Your task to perform on an android device: Open Youtube and go to "Your channel" Image 0: 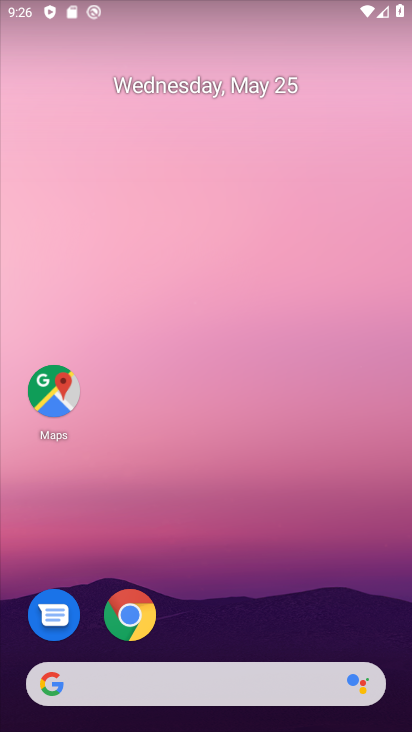
Step 0: drag from (237, 547) to (255, 22)
Your task to perform on an android device: Open Youtube and go to "Your channel" Image 1: 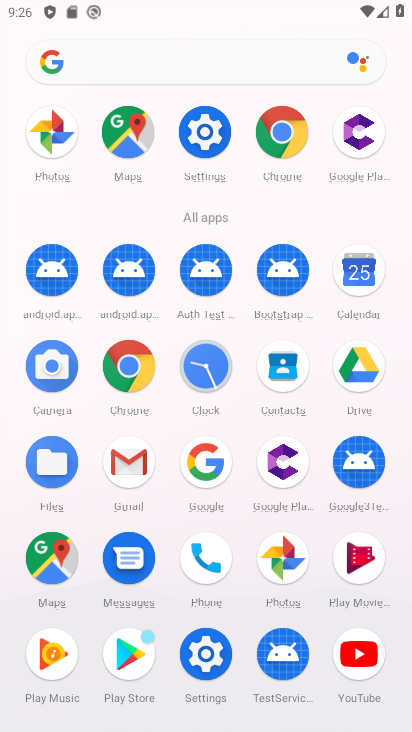
Step 1: click (361, 655)
Your task to perform on an android device: Open Youtube and go to "Your channel" Image 2: 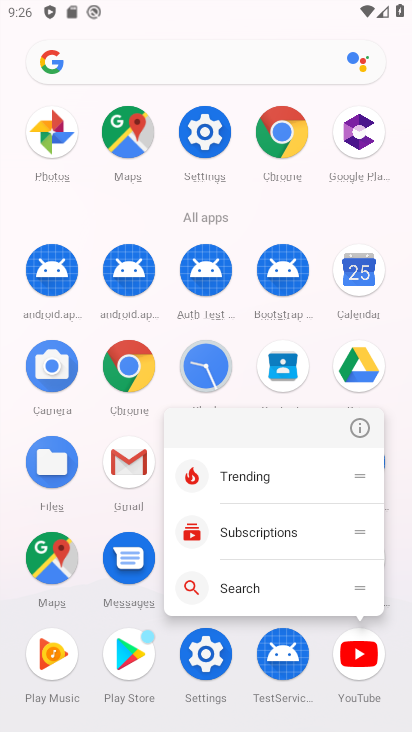
Step 2: click (361, 652)
Your task to perform on an android device: Open Youtube and go to "Your channel" Image 3: 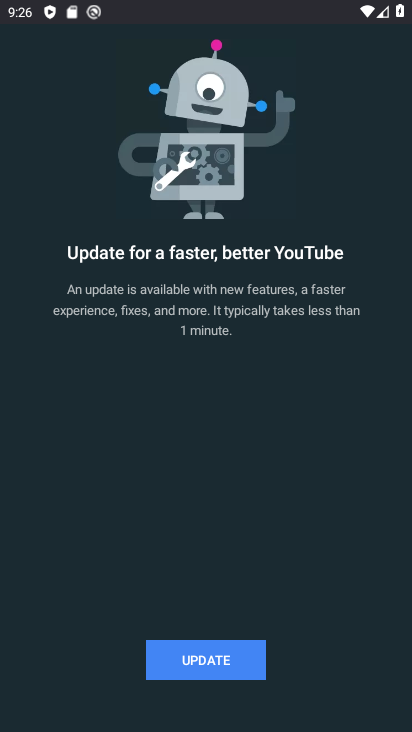
Step 3: click (223, 654)
Your task to perform on an android device: Open Youtube and go to "Your channel" Image 4: 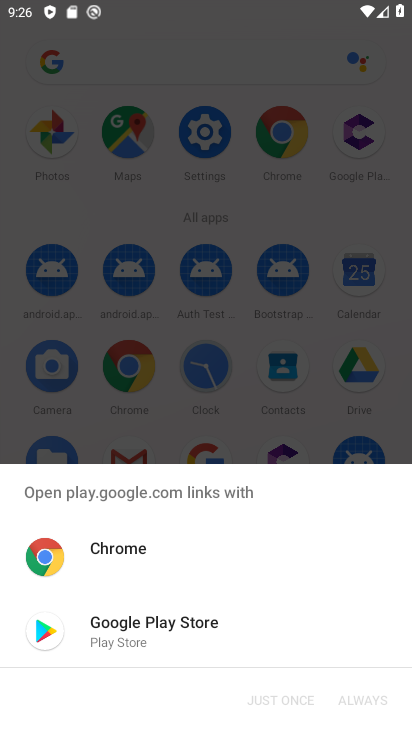
Step 4: click (168, 617)
Your task to perform on an android device: Open Youtube and go to "Your channel" Image 5: 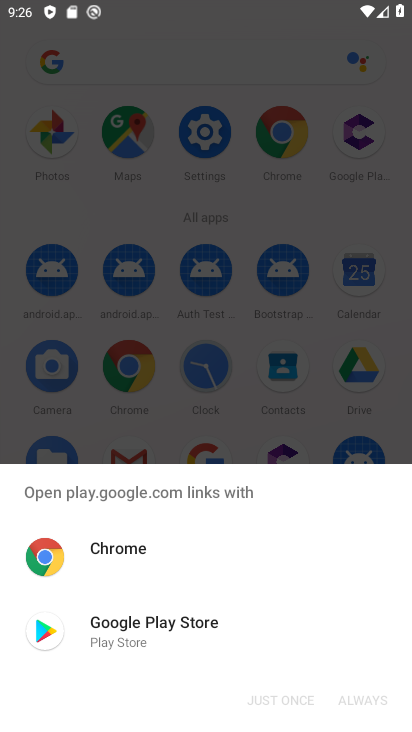
Step 5: click (184, 616)
Your task to perform on an android device: Open Youtube and go to "Your channel" Image 6: 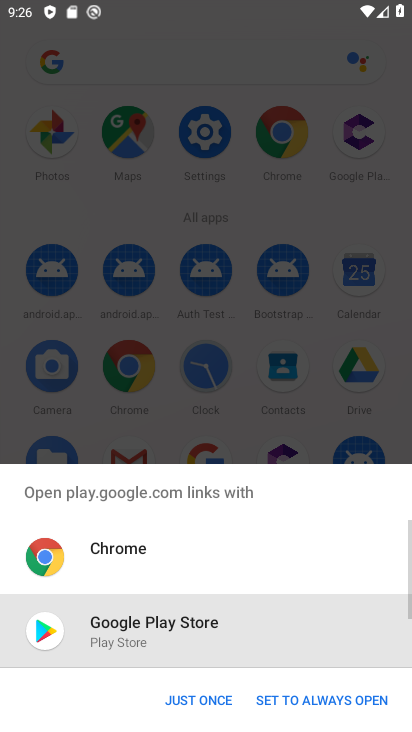
Step 6: click (197, 692)
Your task to perform on an android device: Open Youtube and go to "Your channel" Image 7: 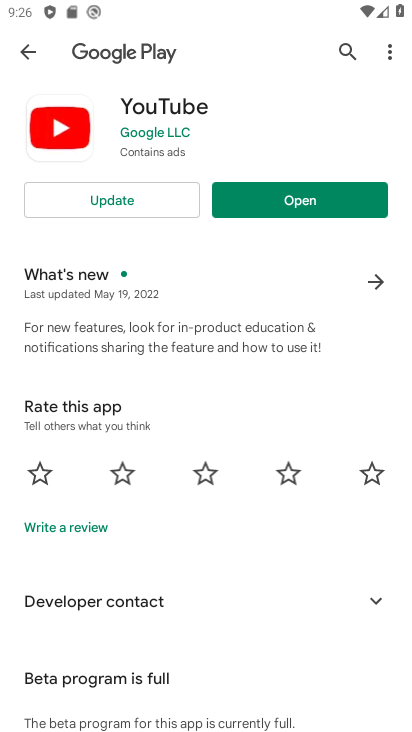
Step 7: click (175, 201)
Your task to perform on an android device: Open Youtube and go to "Your channel" Image 8: 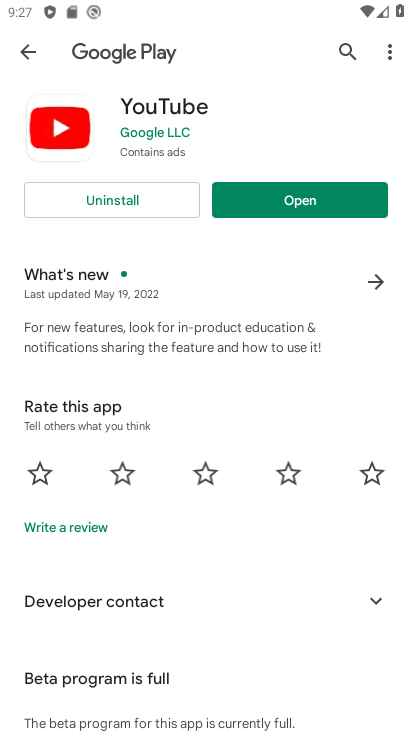
Step 8: click (373, 204)
Your task to perform on an android device: Open Youtube and go to "Your channel" Image 9: 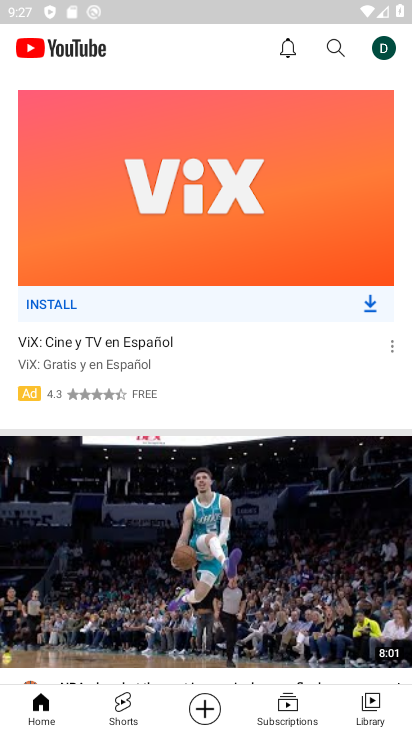
Step 9: click (385, 42)
Your task to perform on an android device: Open Youtube and go to "Your channel" Image 10: 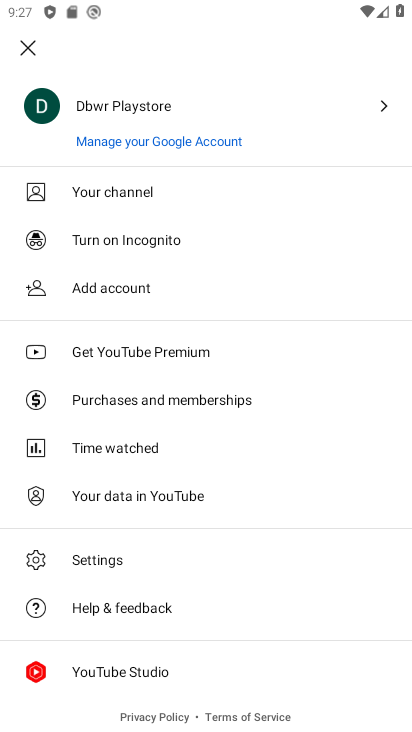
Step 10: click (199, 194)
Your task to perform on an android device: Open Youtube and go to "Your channel" Image 11: 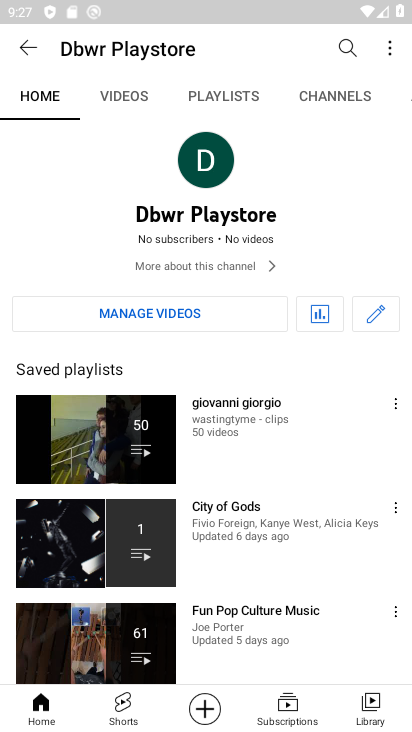
Step 11: task complete